Your task to perform on an android device: change alarm snooze length Image 0: 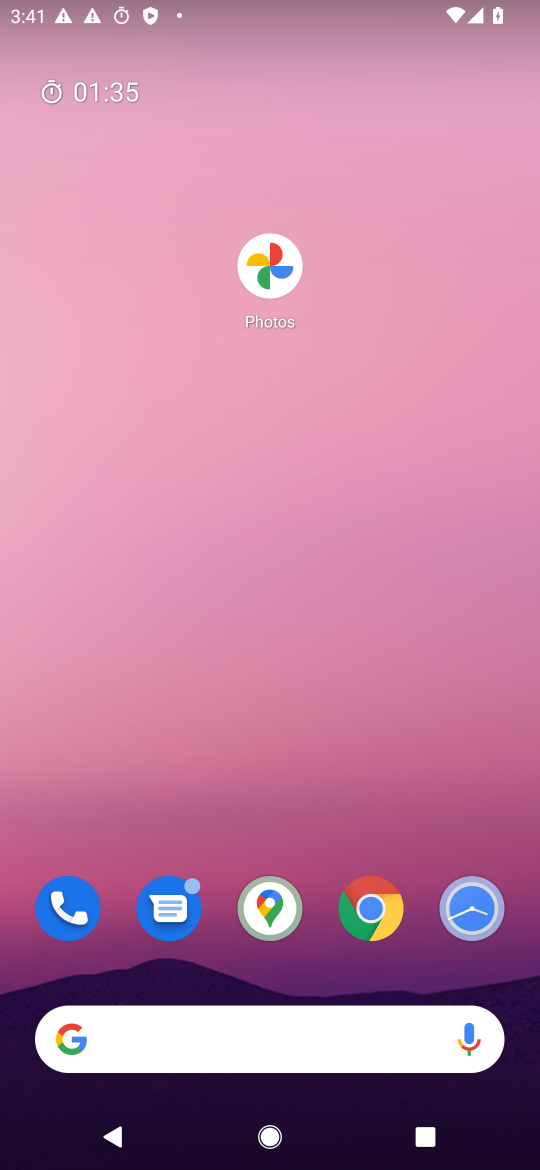
Step 0: drag from (241, 650) to (367, 2)
Your task to perform on an android device: change alarm snooze length Image 1: 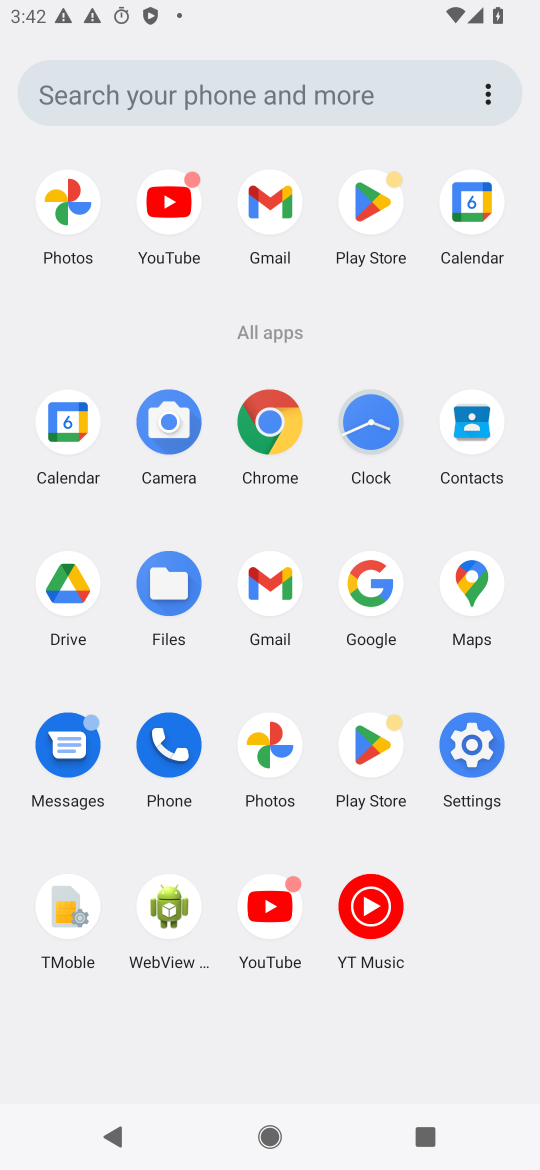
Step 1: click (381, 440)
Your task to perform on an android device: change alarm snooze length Image 2: 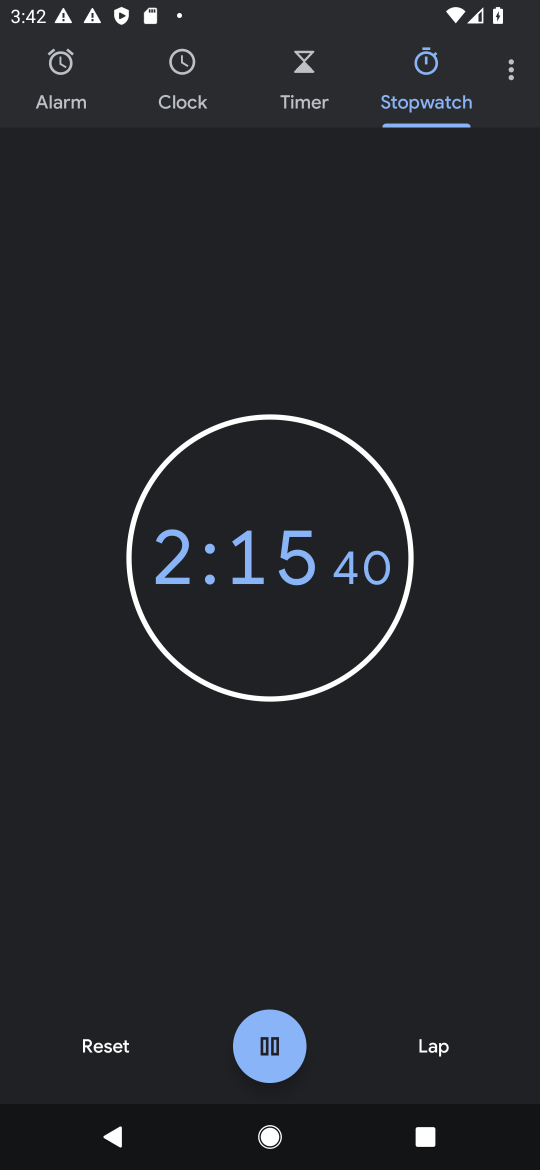
Step 2: click (510, 61)
Your task to perform on an android device: change alarm snooze length Image 3: 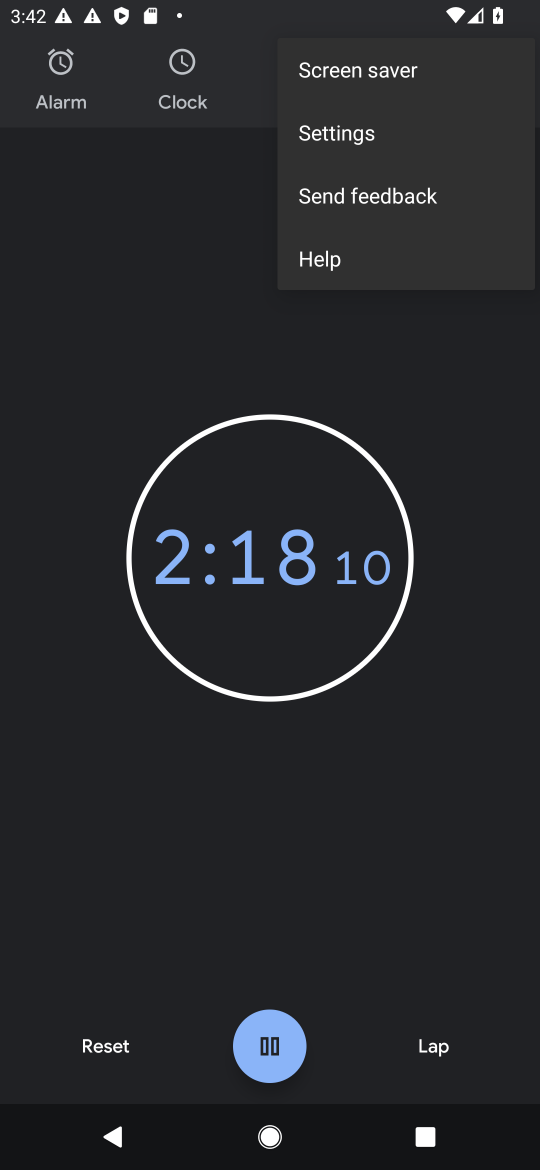
Step 3: click (334, 136)
Your task to perform on an android device: change alarm snooze length Image 4: 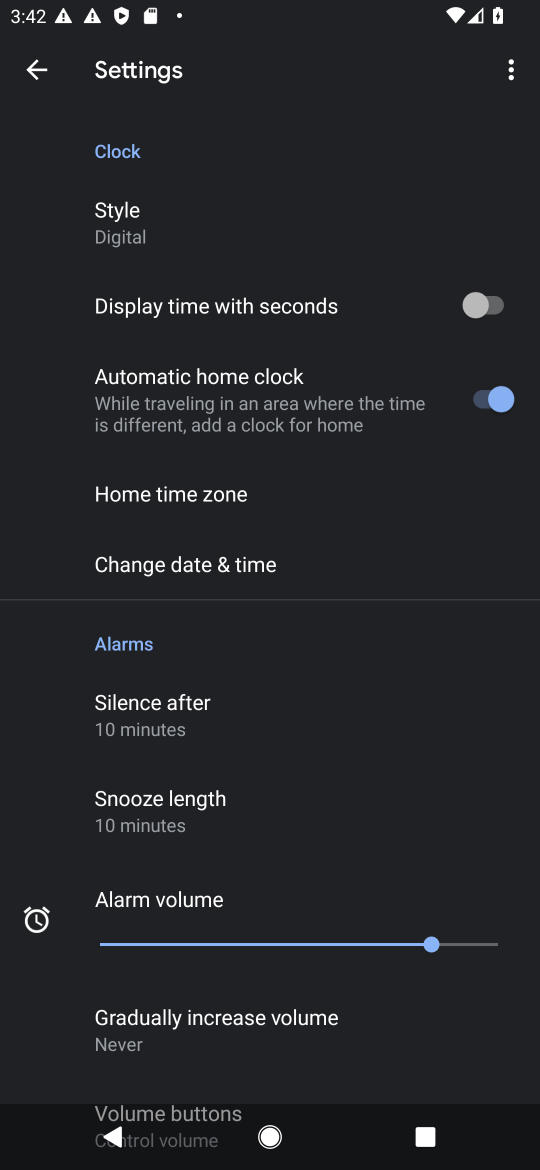
Step 4: click (166, 829)
Your task to perform on an android device: change alarm snooze length Image 5: 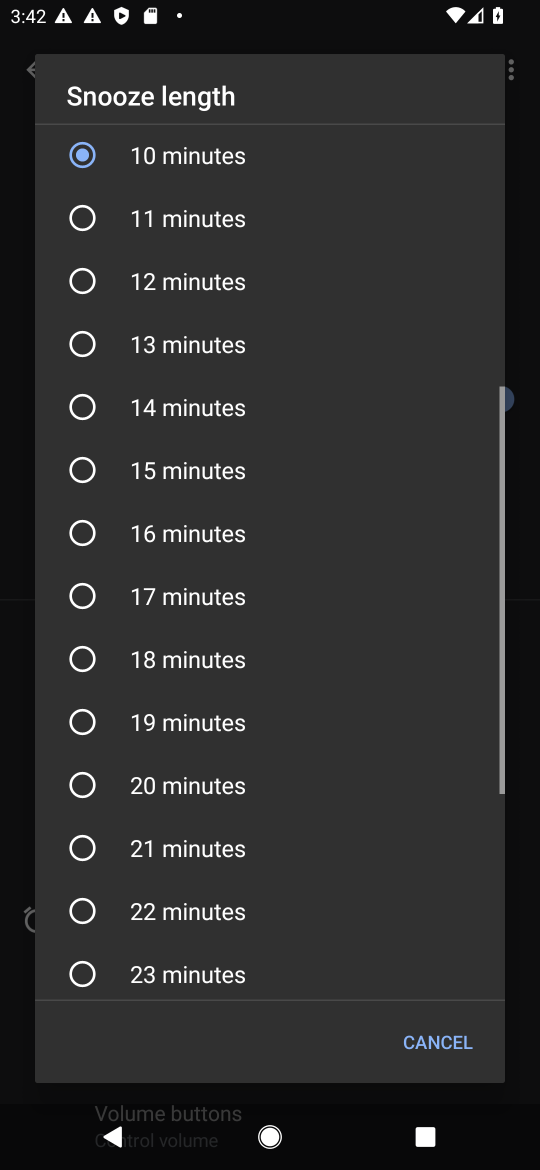
Step 5: click (70, 434)
Your task to perform on an android device: change alarm snooze length Image 6: 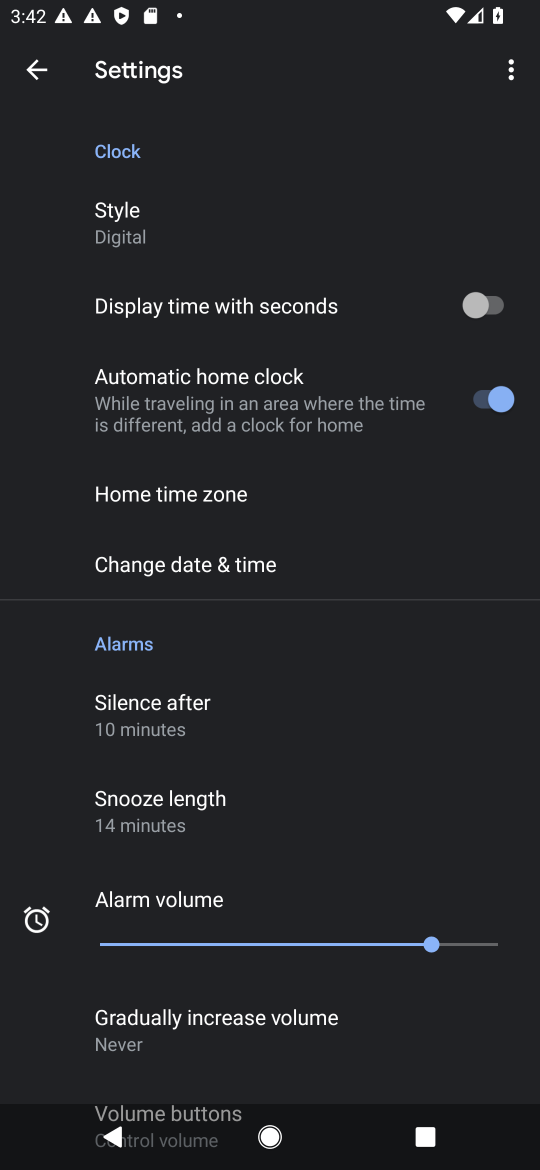
Step 6: click (162, 235)
Your task to perform on an android device: change alarm snooze length Image 7: 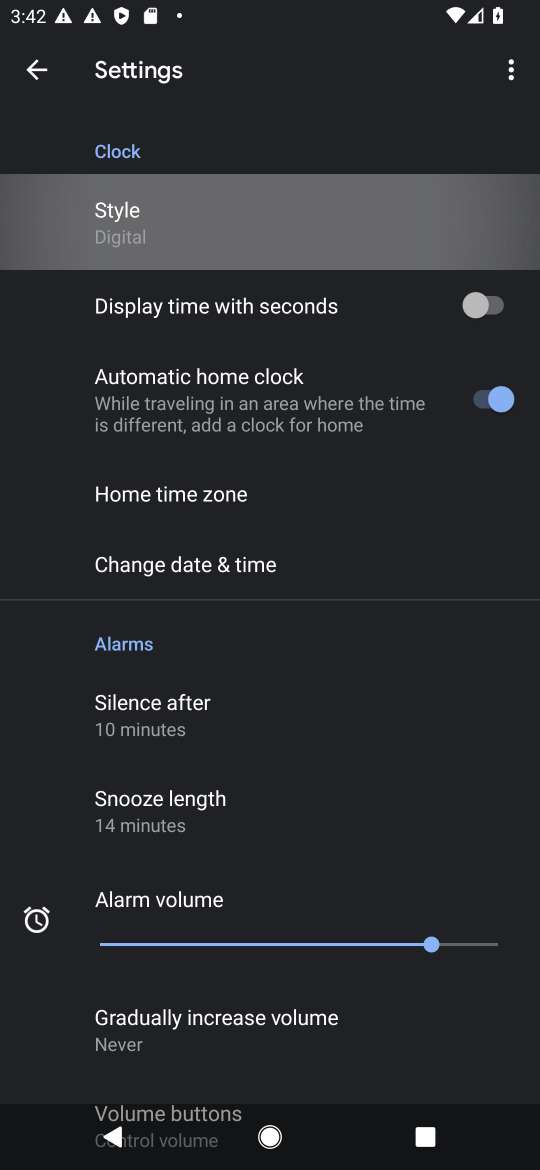
Step 7: click (418, 185)
Your task to perform on an android device: change alarm snooze length Image 8: 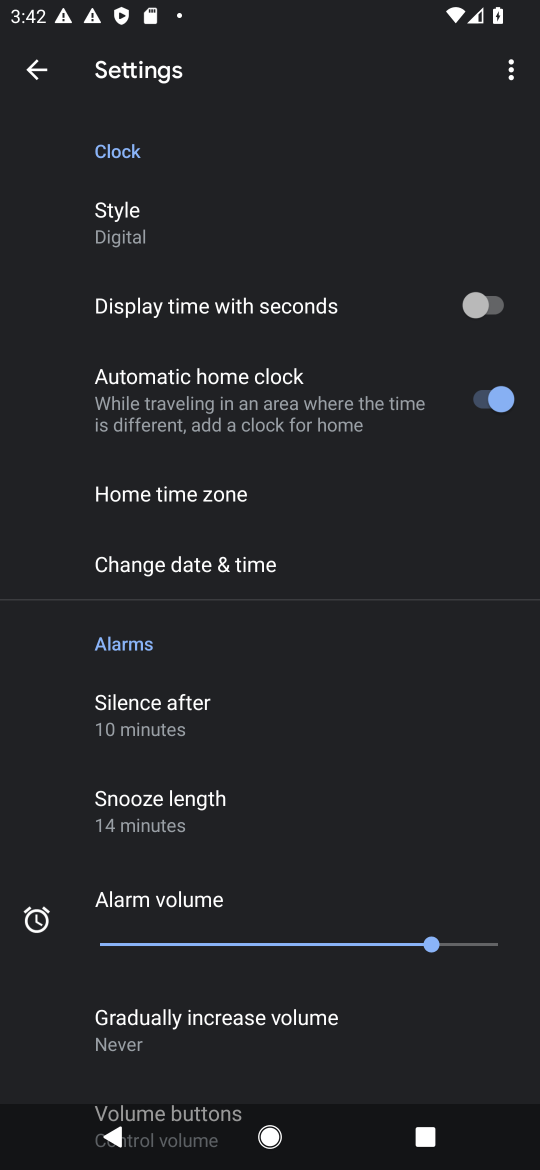
Step 8: drag from (275, 809) to (289, 499)
Your task to perform on an android device: change alarm snooze length Image 9: 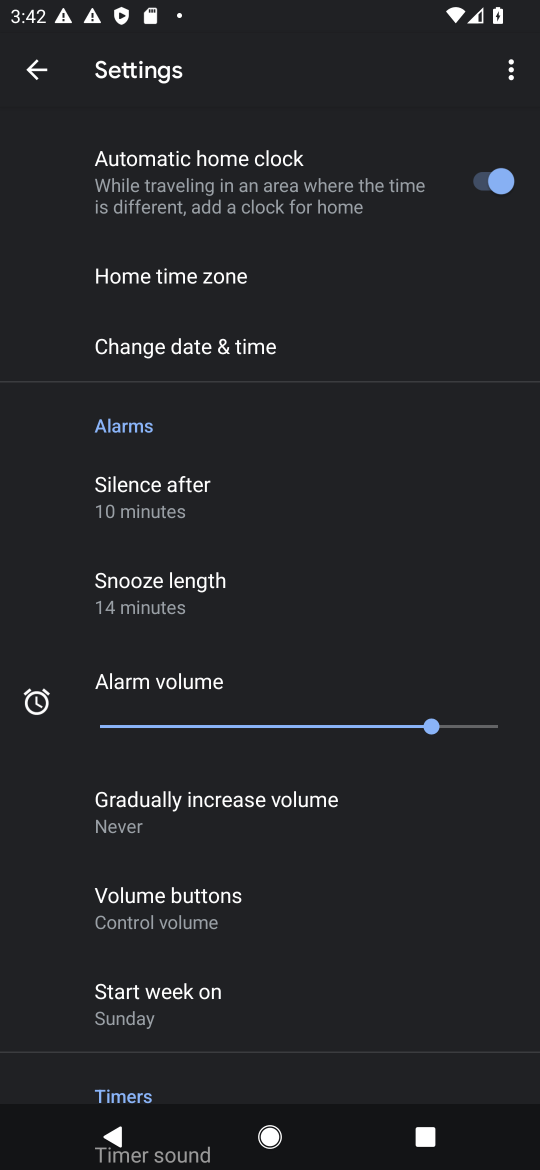
Step 9: click (183, 593)
Your task to perform on an android device: change alarm snooze length Image 10: 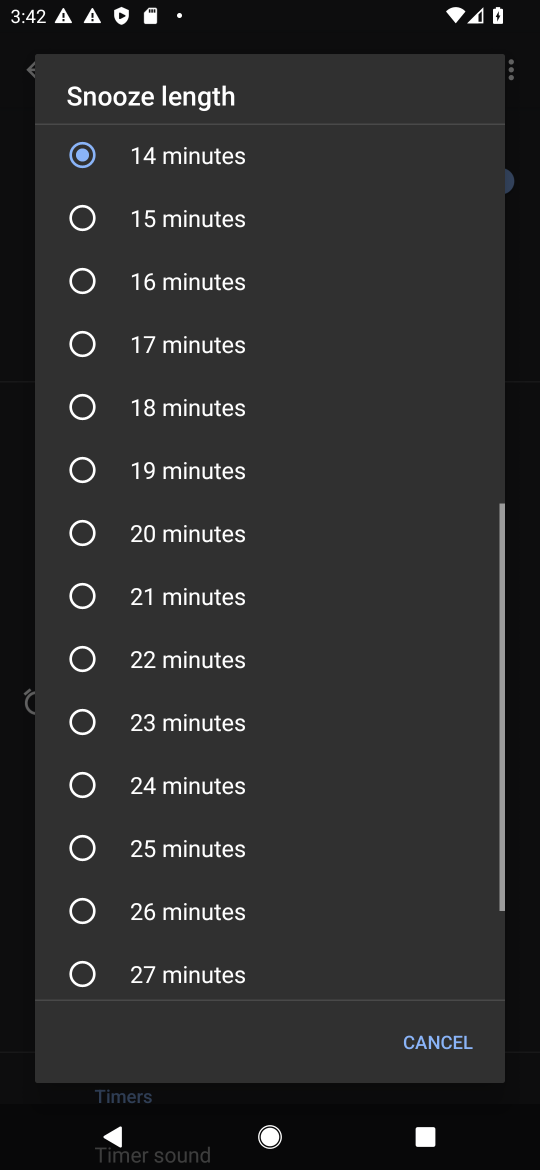
Step 10: click (147, 545)
Your task to perform on an android device: change alarm snooze length Image 11: 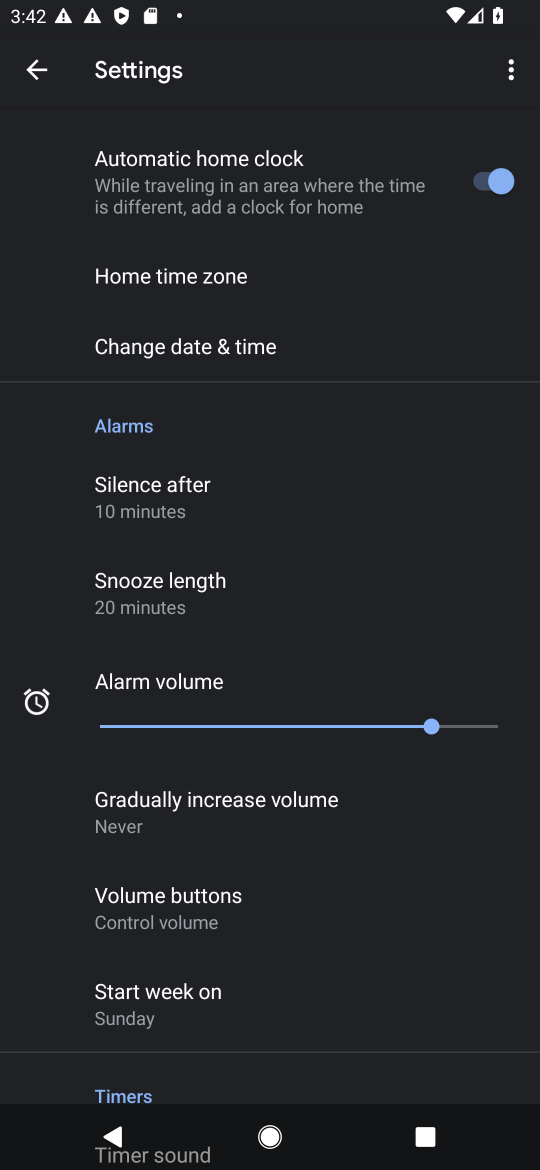
Step 11: task complete